Your task to perform on an android device: Open ESPN.com Image 0: 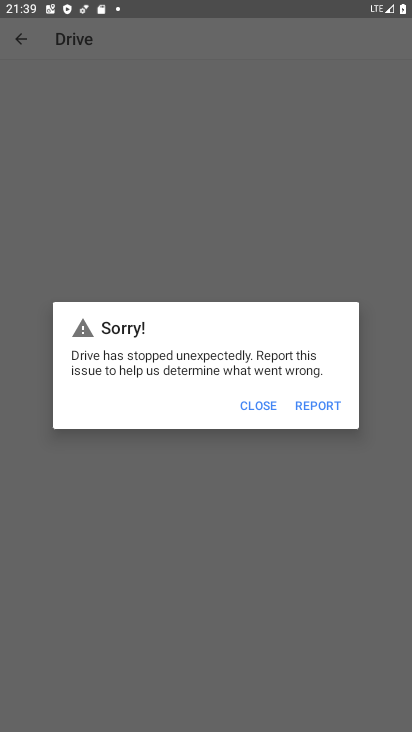
Step 0: press back button
Your task to perform on an android device: Open ESPN.com Image 1: 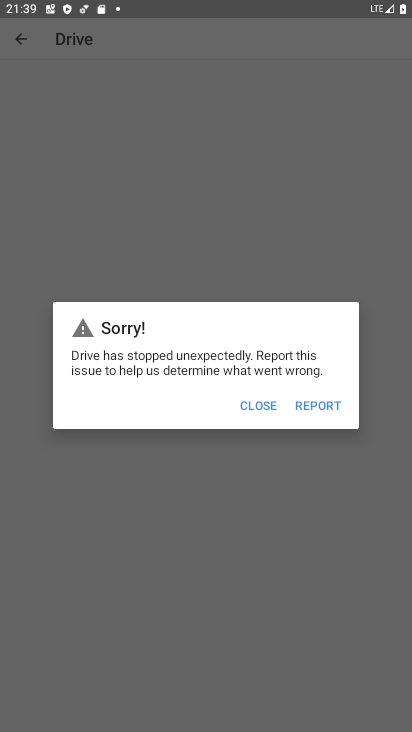
Step 1: press back button
Your task to perform on an android device: Open ESPN.com Image 2: 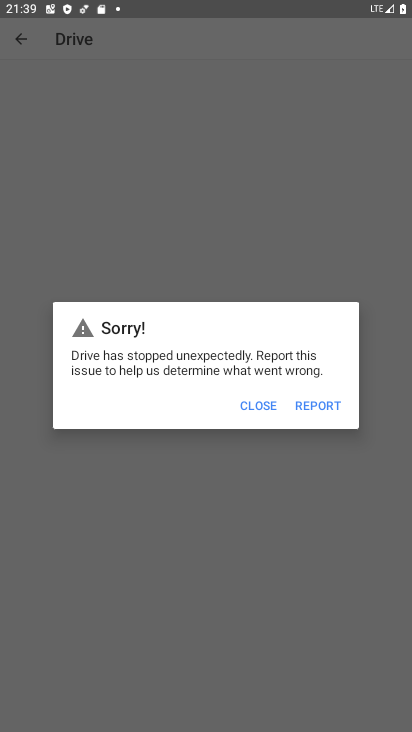
Step 2: click (254, 405)
Your task to perform on an android device: Open ESPN.com Image 3: 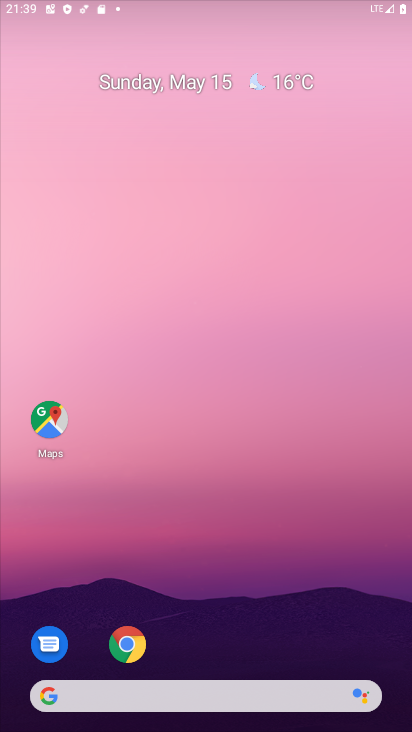
Step 3: click (126, 655)
Your task to perform on an android device: Open ESPN.com Image 4: 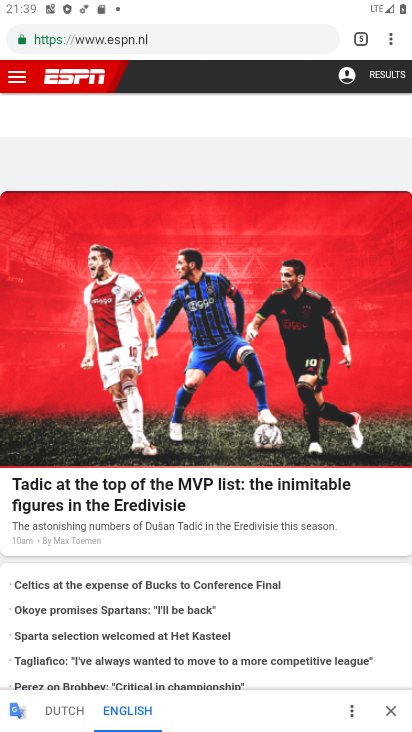
Step 4: task complete